Your task to perform on an android device: Open battery settings Image 0: 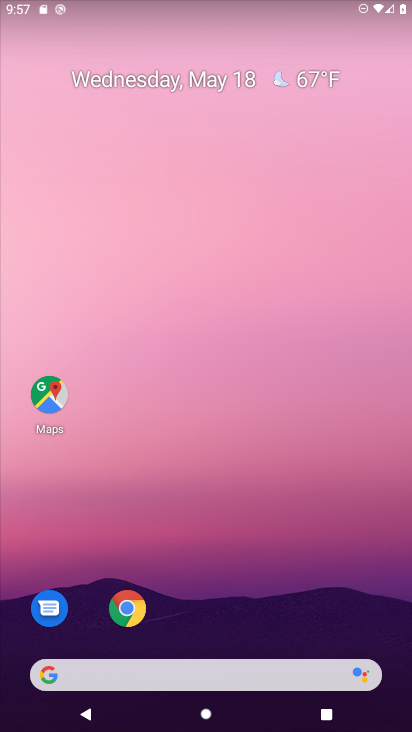
Step 0: drag from (224, 630) to (236, 188)
Your task to perform on an android device: Open battery settings Image 1: 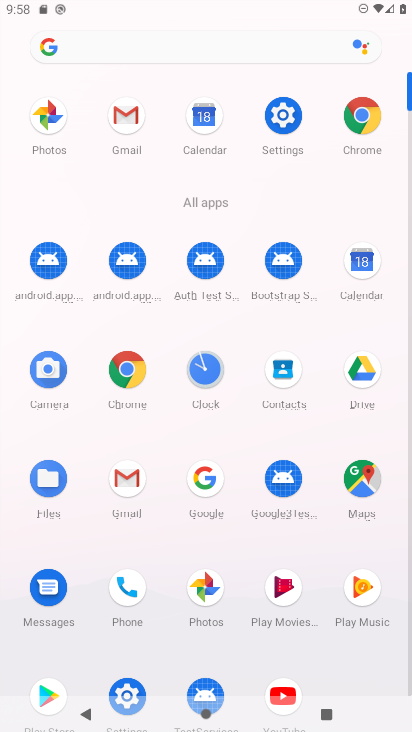
Step 1: click (290, 134)
Your task to perform on an android device: Open battery settings Image 2: 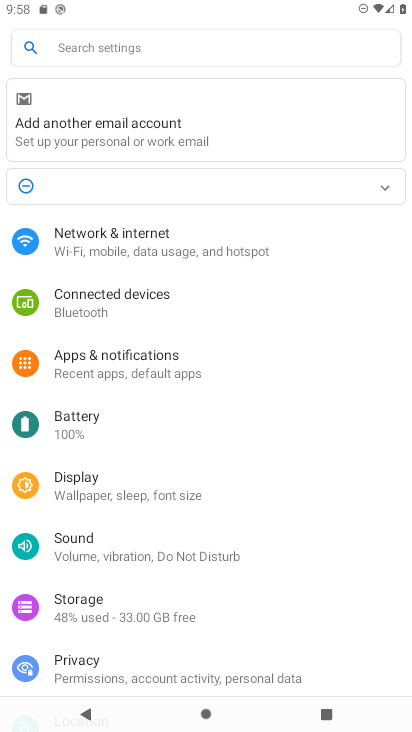
Step 2: click (102, 430)
Your task to perform on an android device: Open battery settings Image 3: 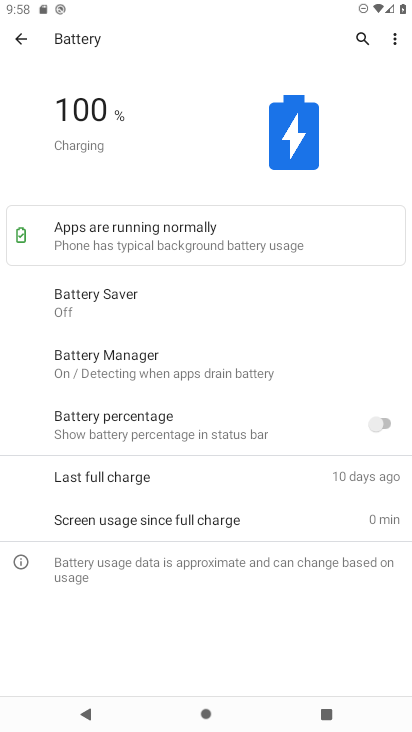
Step 3: task complete